Your task to perform on an android device: open a bookmark in the chrome app Image 0: 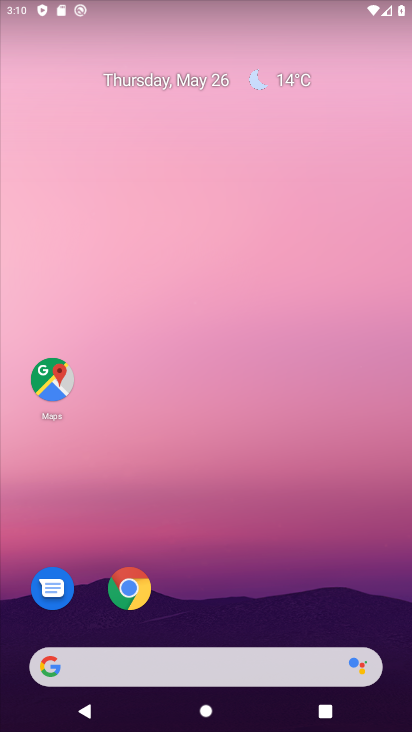
Step 0: click (131, 600)
Your task to perform on an android device: open a bookmark in the chrome app Image 1: 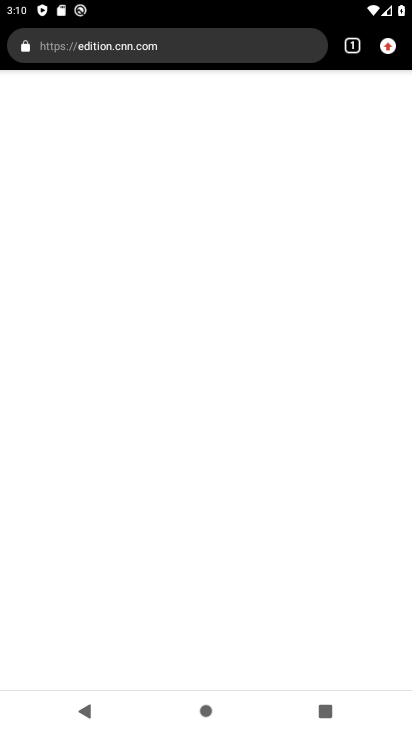
Step 1: click (388, 46)
Your task to perform on an android device: open a bookmark in the chrome app Image 2: 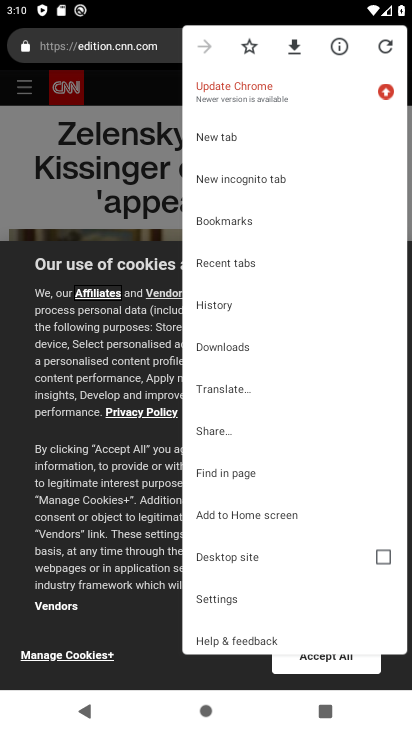
Step 2: click (288, 226)
Your task to perform on an android device: open a bookmark in the chrome app Image 3: 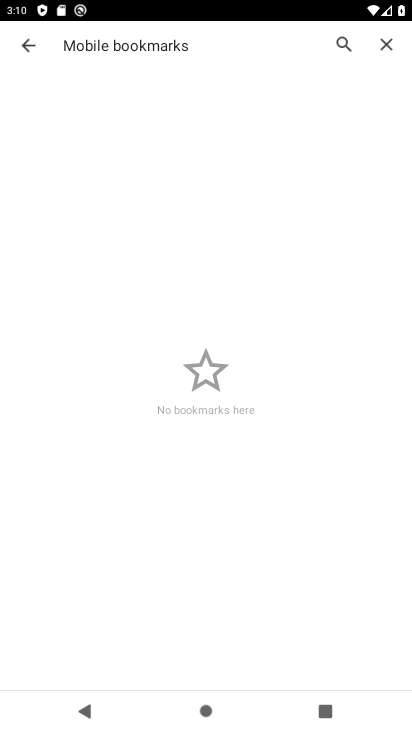
Step 3: task complete